Your task to perform on an android device: toggle priority inbox in the gmail app Image 0: 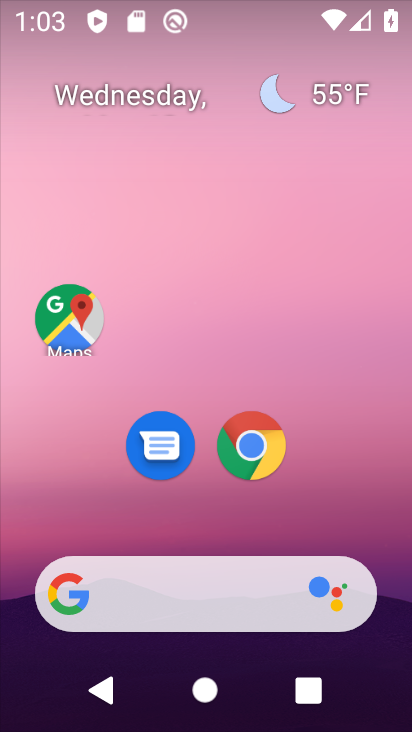
Step 0: drag from (61, 525) to (181, 74)
Your task to perform on an android device: toggle priority inbox in the gmail app Image 1: 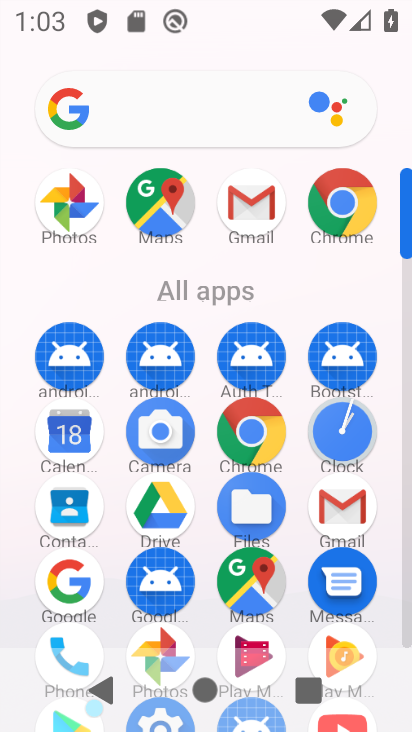
Step 1: click (350, 517)
Your task to perform on an android device: toggle priority inbox in the gmail app Image 2: 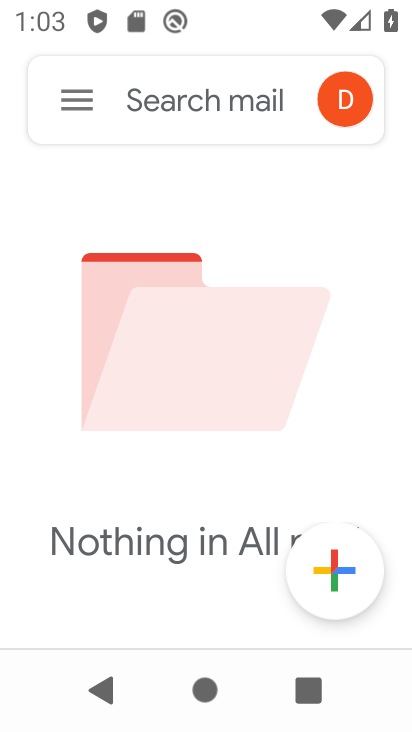
Step 2: click (63, 99)
Your task to perform on an android device: toggle priority inbox in the gmail app Image 3: 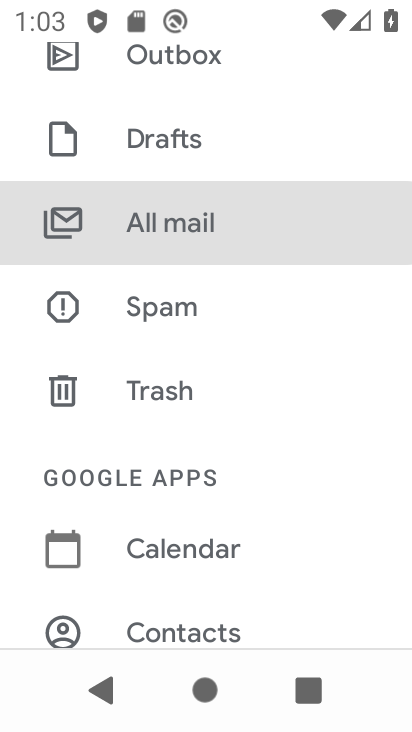
Step 3: drag from (155, 568) to (200, 236)
Your task to perform on an android device: toggle priority inbox in the gmail app Image 4: 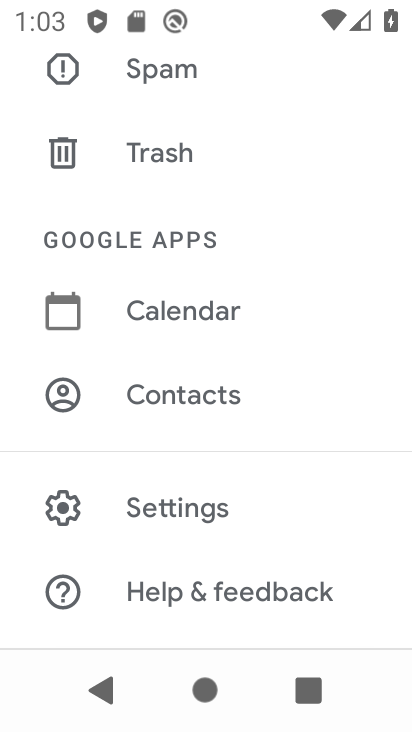
Step 4: click (182, 503)
Your task to perform on an android device: toggle priority inbox in the gmail app Image 5: 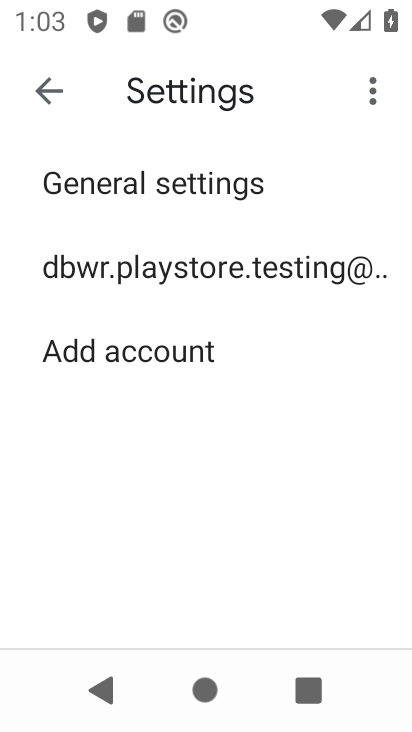
Step 5: click (294, 265)
Your task to perform on an android device: toggle priority inbox in the gmail app Image 6: 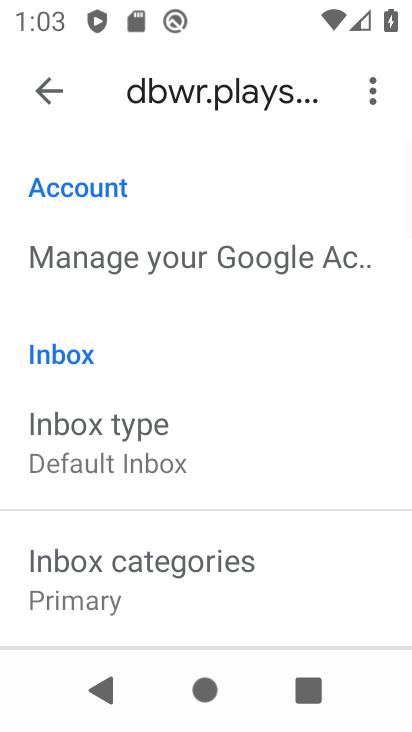
Step 6: click (194, 445)
Your task to perform on an android device: toggle priority inbox in the gmail app Image 7: 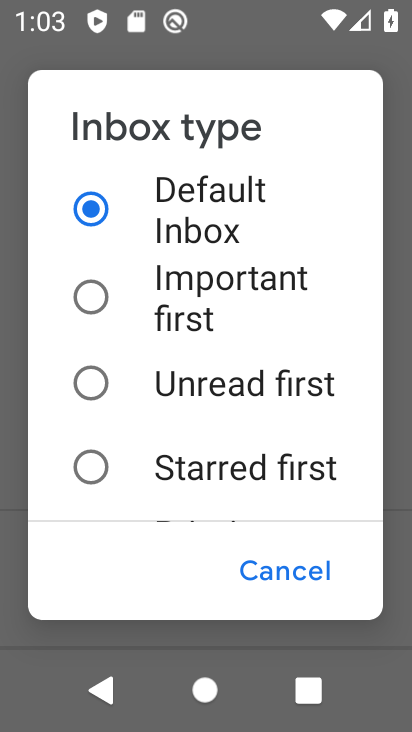
Step 7: drag from (114, 462) to (204, 142)
Your task to perform on an android device: toggle priority inbox in the gmail app Image 8: 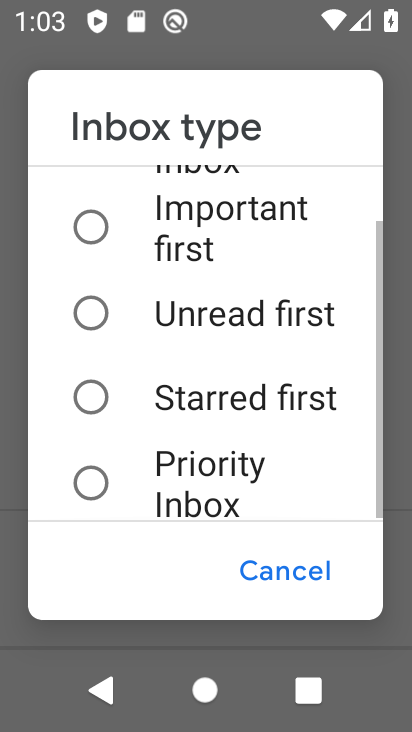
Step 8: click (97, 476)
Your task to perform on an android device: toggle priority inbox in the gmail app Image 9: 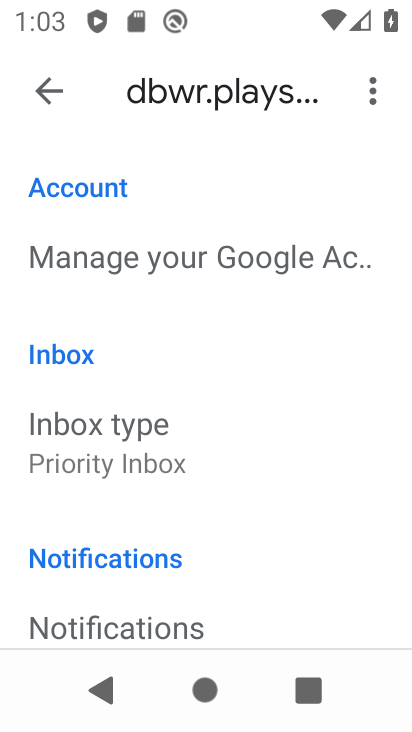
Step 9: task complete